Your task to perform on an android device: toggle airplane mode Image 0: 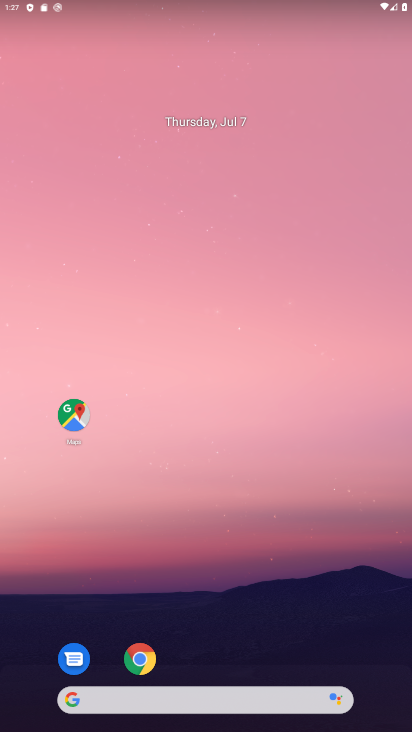
Step 0: drag from (228, 163) to (236, 116)
Your task to perform on an android device: toggle airplane mode Image 1: 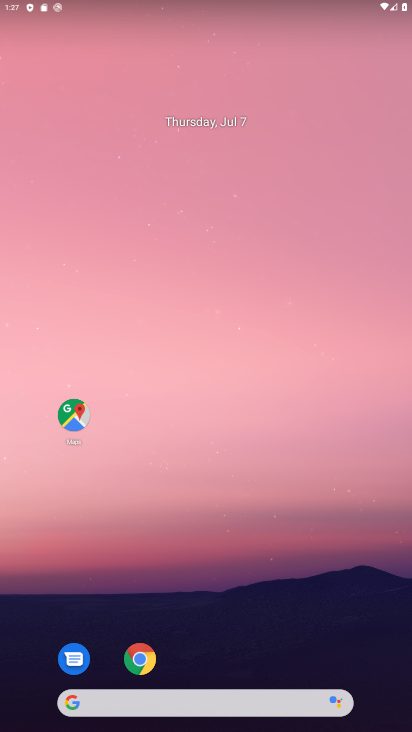
Step 1: click (265, 283)
Your task to perform on an android device: toggle airplane mode Image 2: 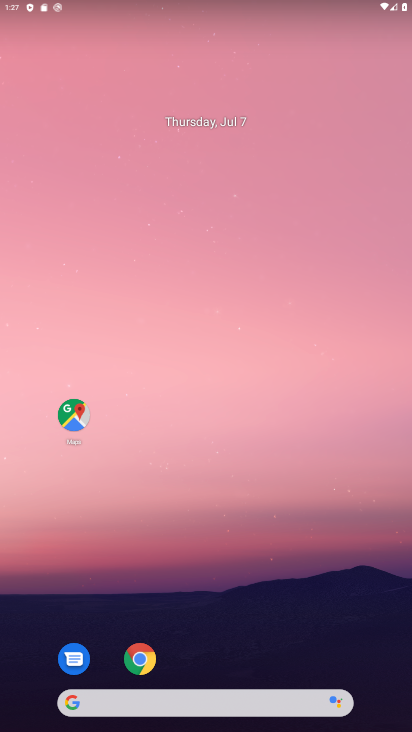
Step 2: click (291, 484)
Your task to perform on an android device: toggle airplane mode Image 3: 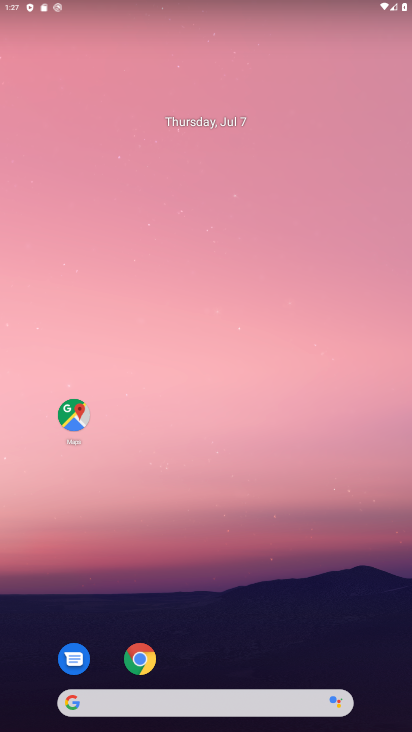
Step 3: drag from (288, 490) to (271, 26)
Your task to perform on an android device: toggle airplane mode Image 4: 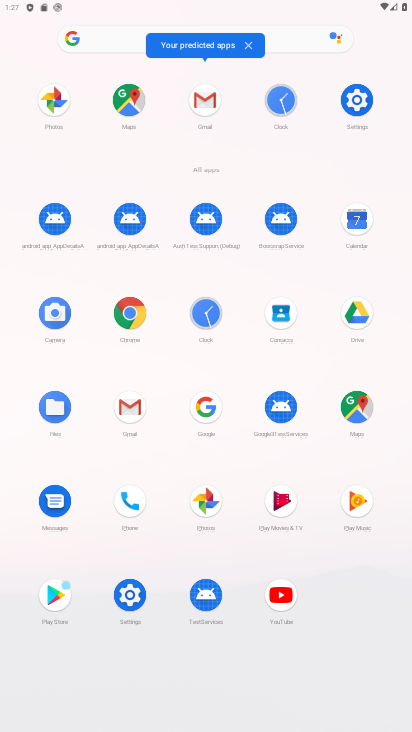
Step 4: click (369, 99)
Your task to perform on an android device: toggle airplane mode Image 5: 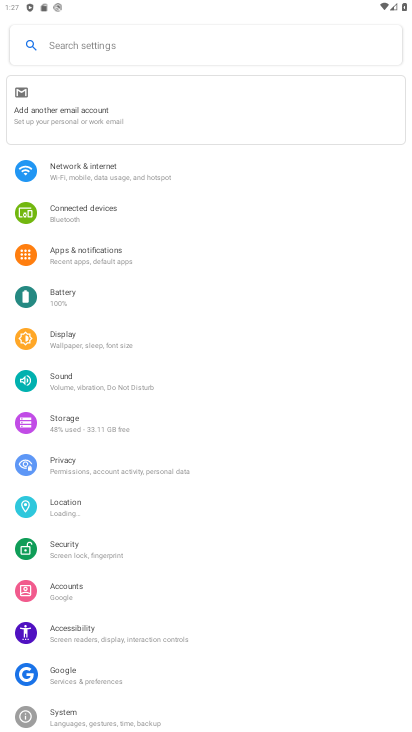
Step 5: click (139, 174)
Your task to perform on an android device: toggle airplane mode Image 6: 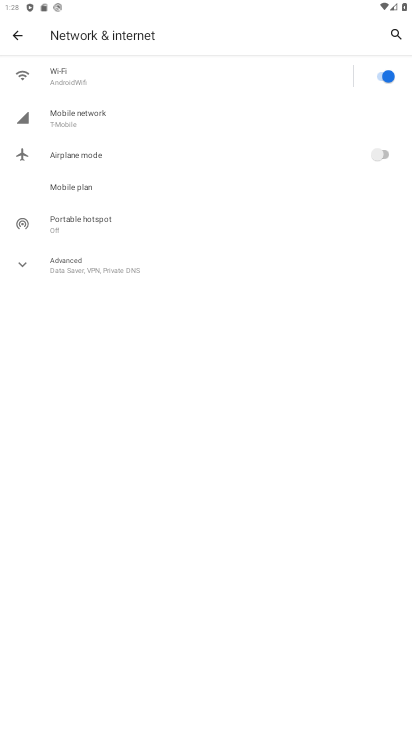
Step 6: click (144, 156)
Your task to perform on an android device: toggle airplane mode Image 7: 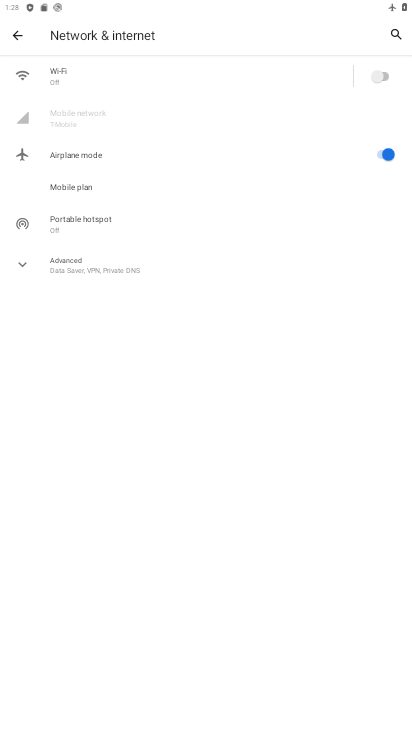
Step 7: task complete